Your task to perform on an android device: turn on notifications settings in the gmail app Image 0: 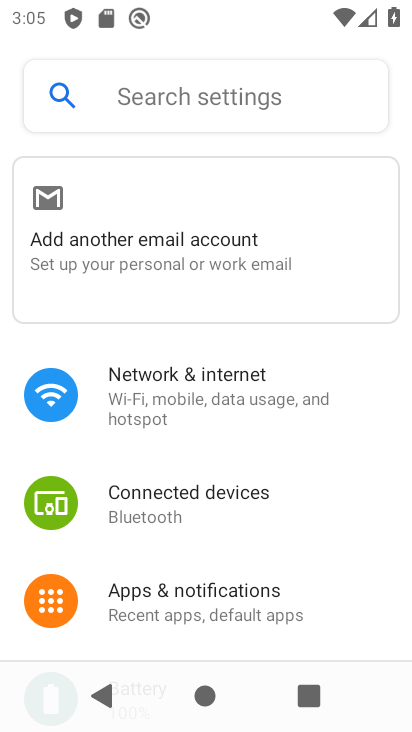
Step 0: press home button
Your task to perform on an android device: turn on notifications settings in the gmail app Image 1: 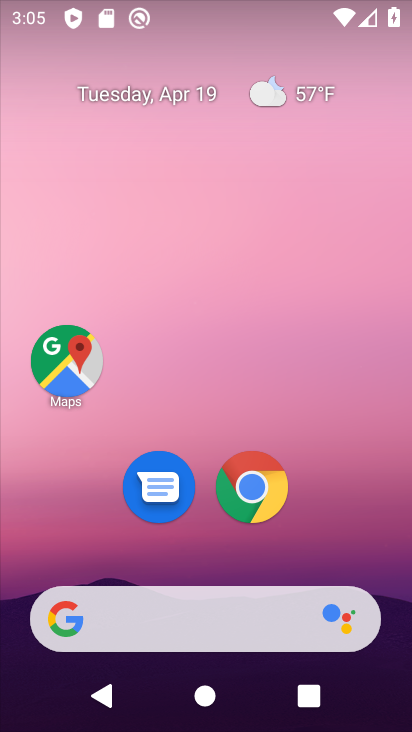
Step 1: drag from (390, 532) to (370, 152)
Your task to perform on an android device: turn on notifications settings in the gmail app Image 2: 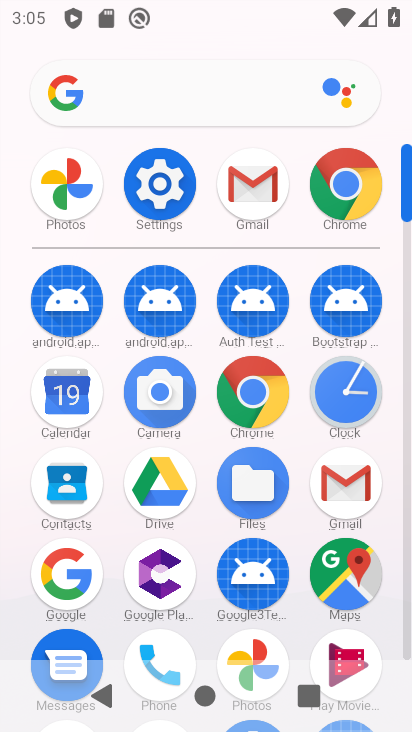
Step 2: click (333, 485)
Your task to perform on an android device: turn on notifications settings in the gmail app Image 3: 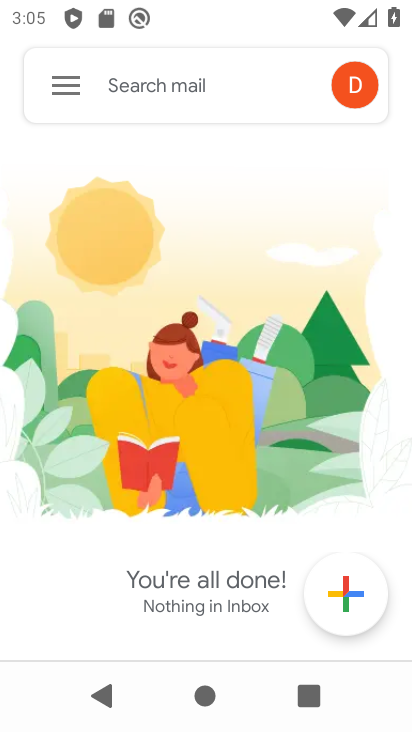
Step 3: click (56, 83)
Your task to perform on an android device: turn on notifications settings in the gmail app Image 4: 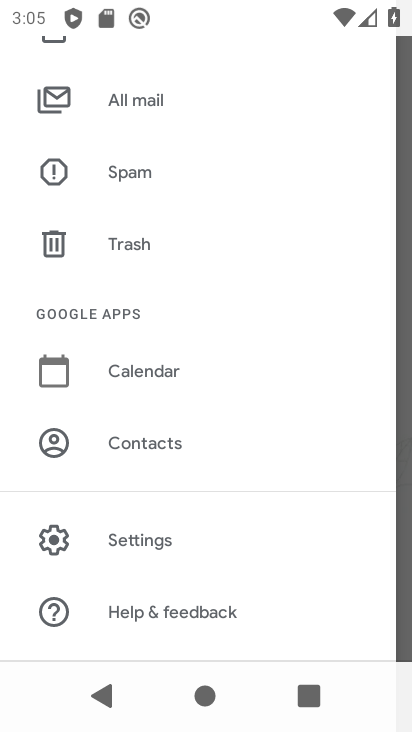
Step 4: drag from (209, 143) to (253, 524)
Your task to perform on an android device: turn on notifications settings in the gmail app Image 5: 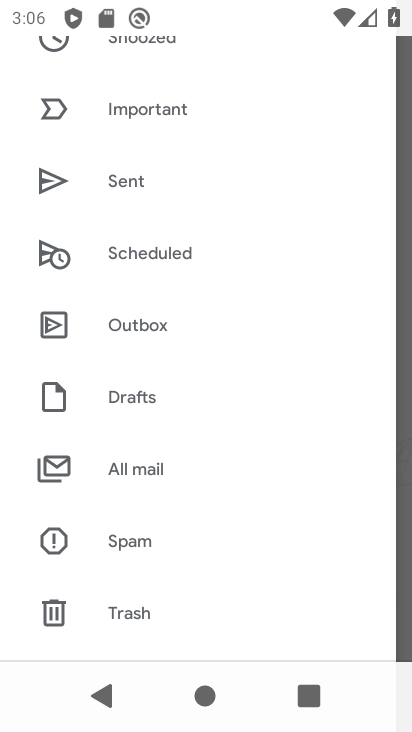
Step 5: drag from (194, 183) to (171, 502)
Your task to perform on an android device: turn on notifications settings in the gmail app Image 6: 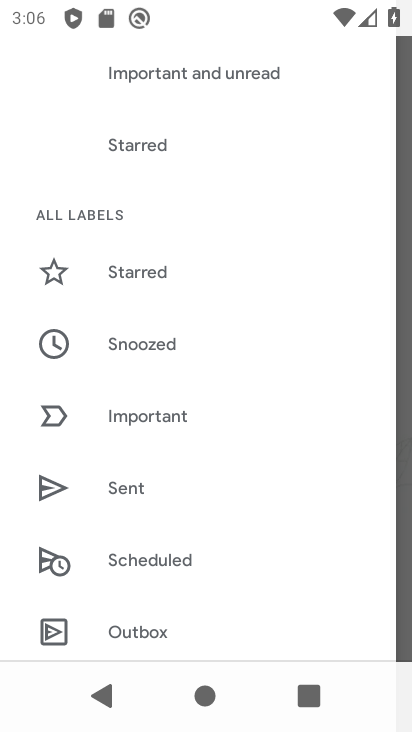
Step 6: drag from (219, 589) to (241, 332)
Your task to perform on an android device: turn on notifications settings in the gmail app Image 7: 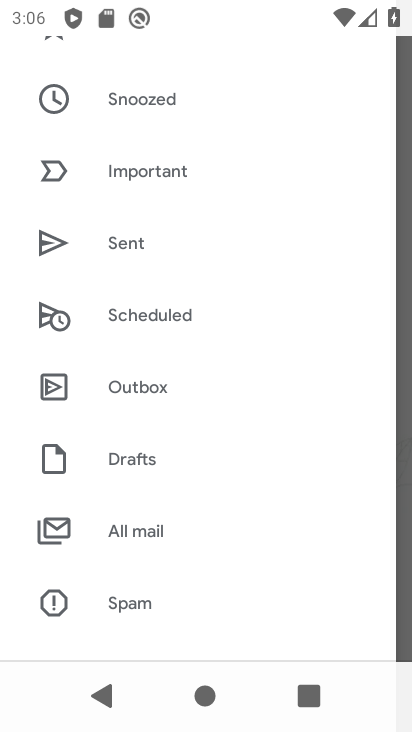
Step 7: drag from (196, 536) to (271, 192)
Your task to perform on an android device: turn on notifications settings in the gmail app Image 8: 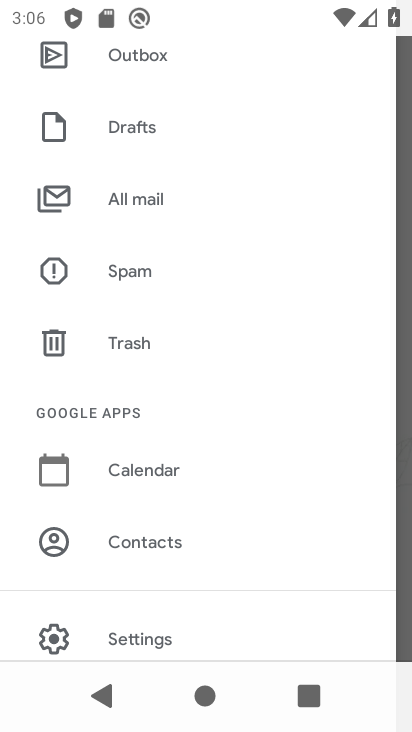
Step 8: click (157, 631)
Your task to perform on an android device: turn on notifications settings in the gmail app Image 9: 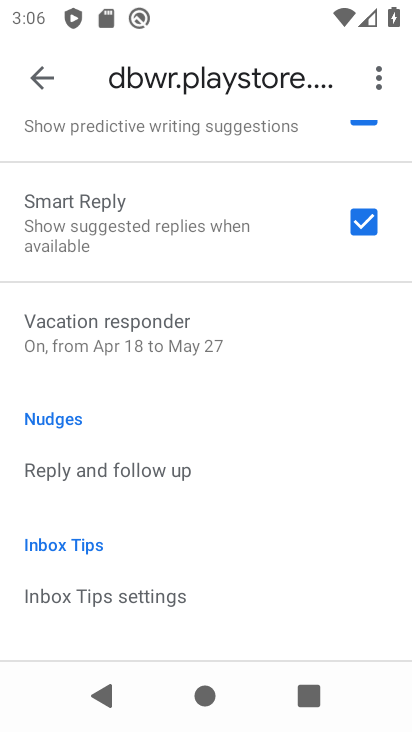
Step 9: drag from (256, 190) to (253, 547)
Your task to perform on an android device: turn on notifications settings in the gmail app Image 10: 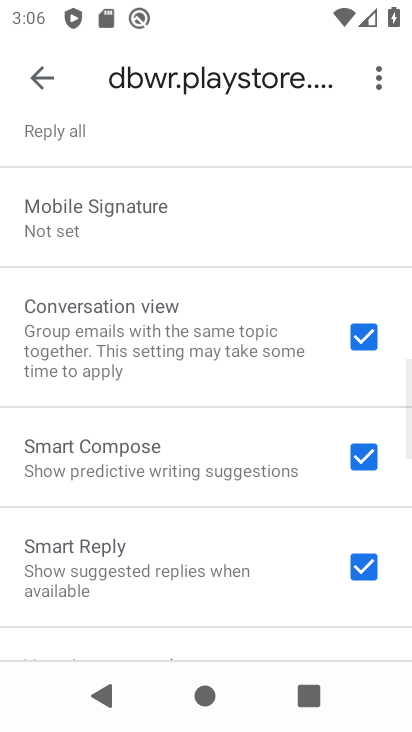
Step 10: drag from (223, 311) to (259, 598)
Your task to perform on an android device: turn on notifications settings in the gmail app Image 11: 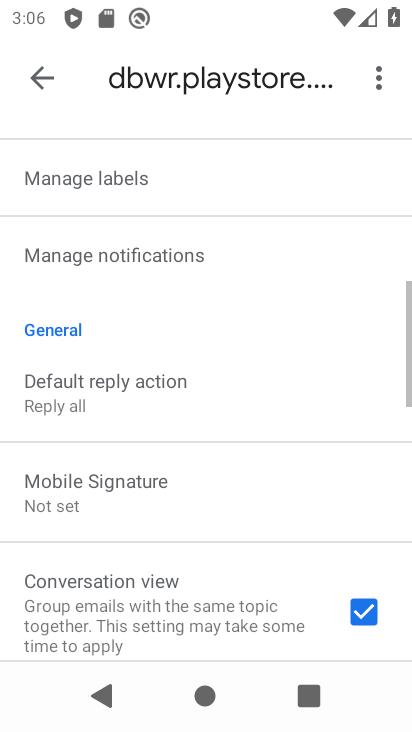
Step 11: drag from (226, 239) to (266, 505)
Your task to perform on an android device: turn on notifications settings in the gmail app Image 12: 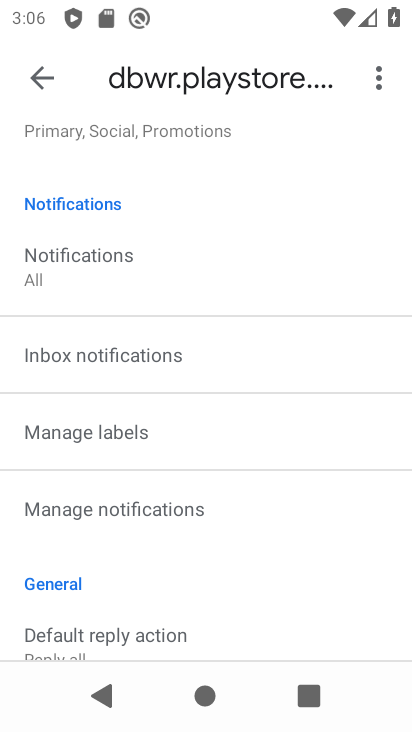
Step 12: drag from (269, 282) to (266, 546)
Your task to perform on an android device: turn on notifications settings in the gmail app Image 13: 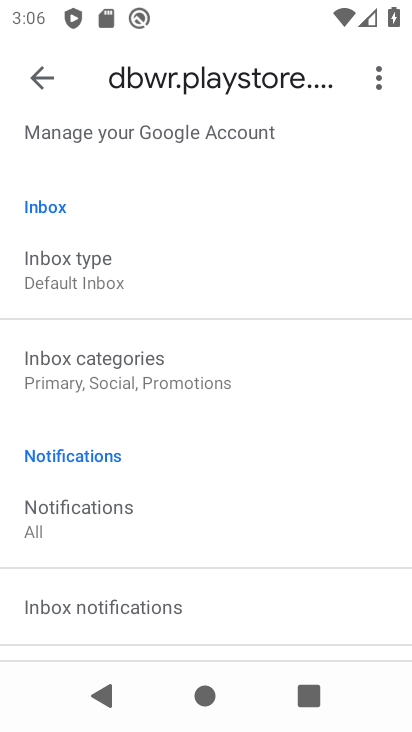
Step 13: drag from (255, 255) to (259, 605)
Your task to perform on an android device: turn on notifications settings in the gmail app Image 14: 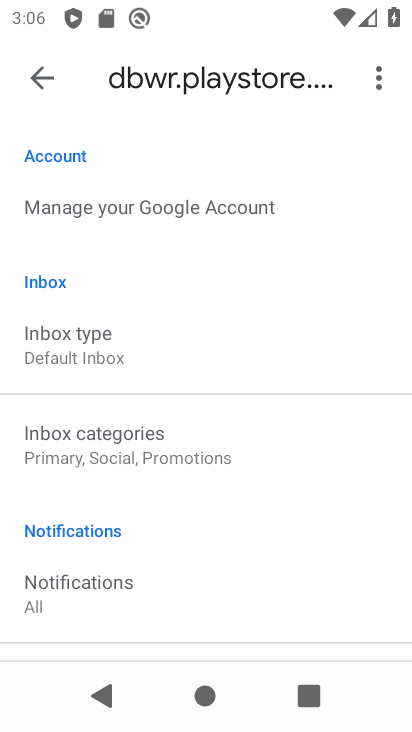
Step 14: click (92, 575)
Your task to perform on an android device: turn on notifications settings in the gmail app Image 15: 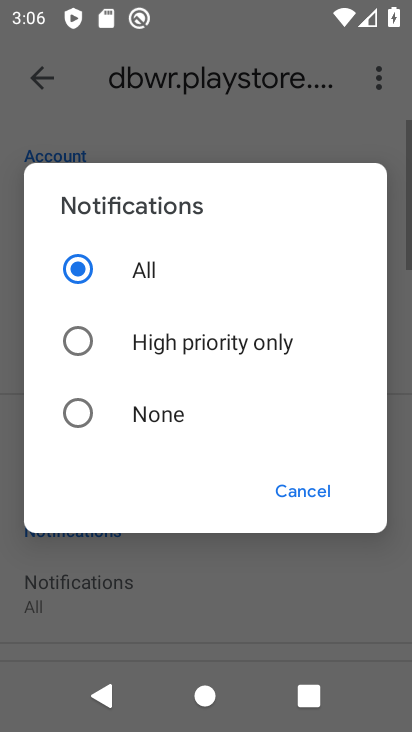
Step 15: task complete